Your task to perform on an android device: Turn off the flashlight Image 0: 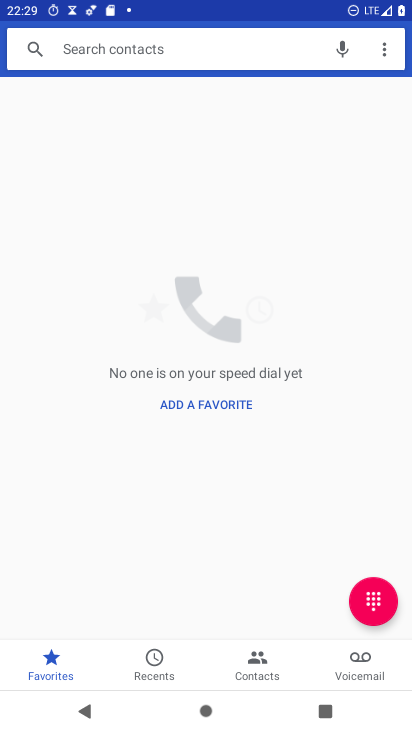
Step 0: press back button
Your task to perform on an android device: Turn off the flashlight Image 1: 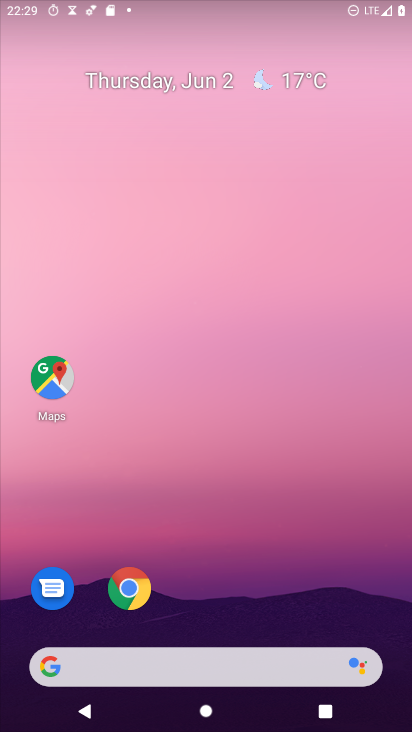
Step 1: drag from (317, 483) to (270, 21)
Your task to perform on an android device: Turn off the flashlight Image 2: 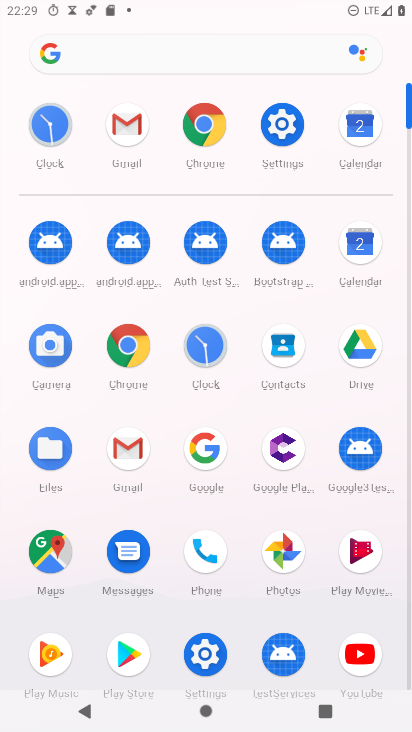
Step 2: click (288, 128)
Your task to perform on an android device: Turn off the flashlight Image 3: 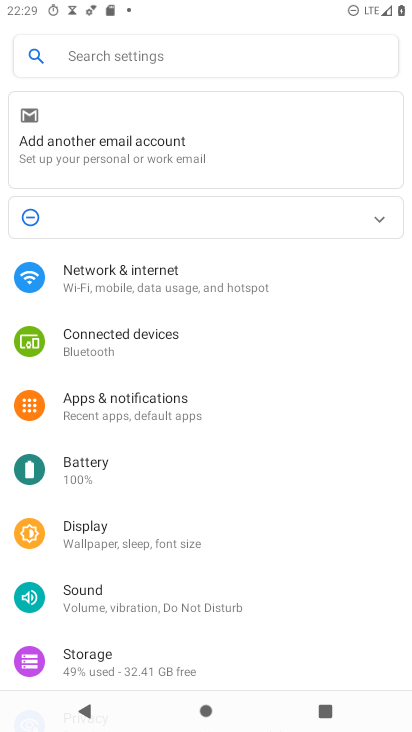
Step 3: click (91, 49)
Your task to perform on an android device: Turn off the flashlight Image 4: 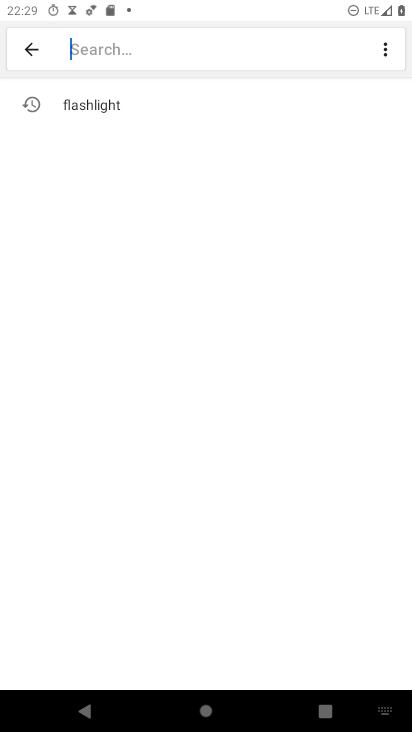
Step 4: click (138, 56)
Your task to perform on an android device: Turn off the flashlight Image 5: 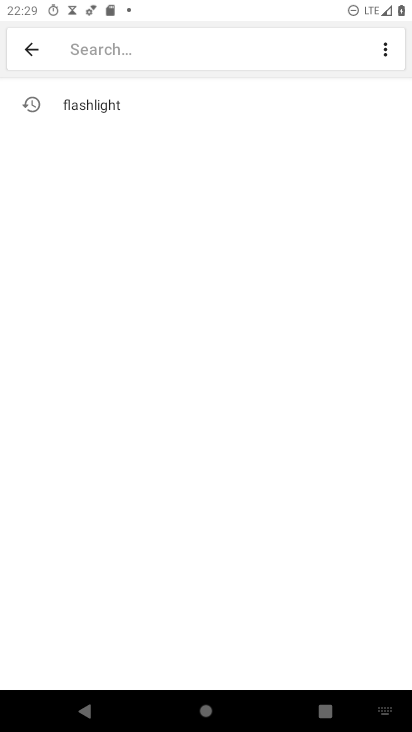
Step 5: click (126, 106)
Your task to perform on an android device: Turn off the flashlight Image 6: 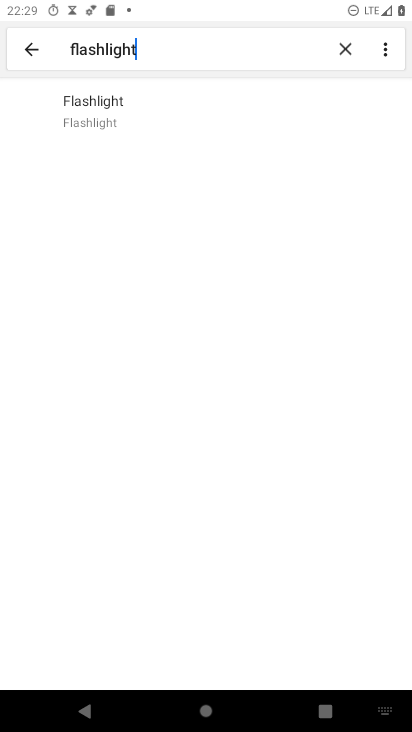
Step 6: click (116, 119)
Your task to perform on an android device: Turn off the flashlight Image 7: 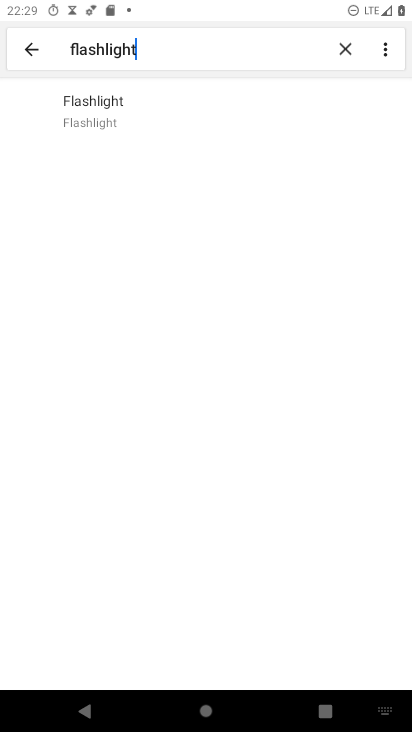
Step 7: click (152, 107)
Your task to perform on an android device: Turn off the flashlight Image 8: 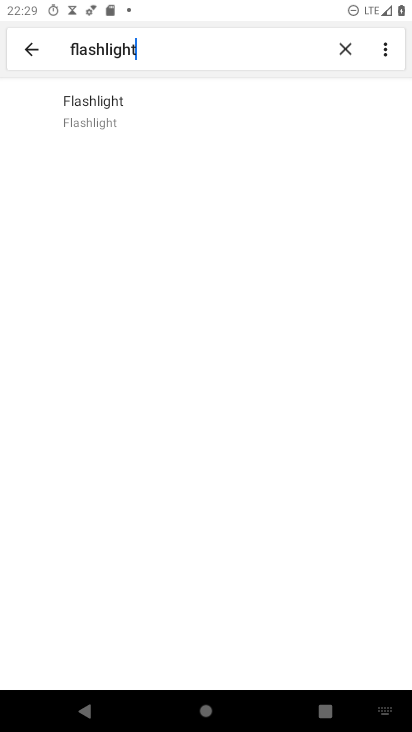
Step 8: task complete